Your task to perform on an android device: change the clock style Image 0: 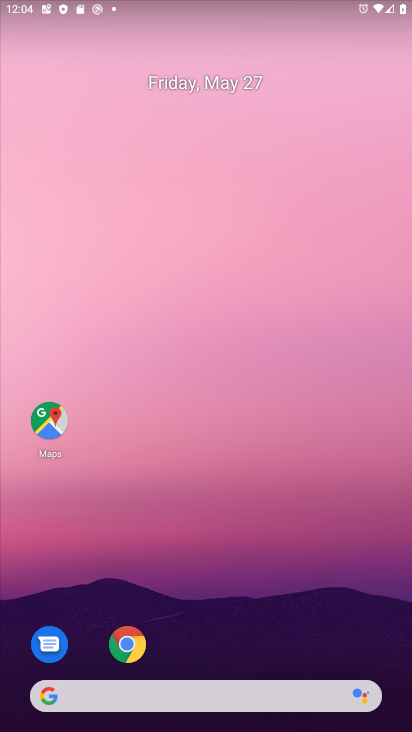
Step 0: drag from (212, 660) to (217, 132)
Your task to perform on an android device: change the clock style Image 1: 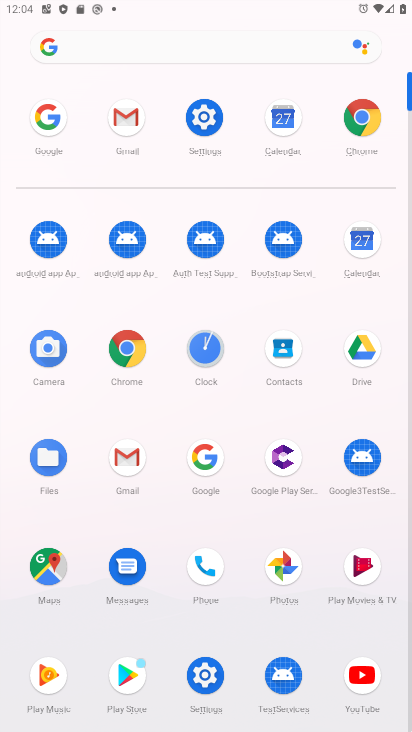
Step 1: click (196, 361)
Your task to perform on an android device: change the clock style Image 2: 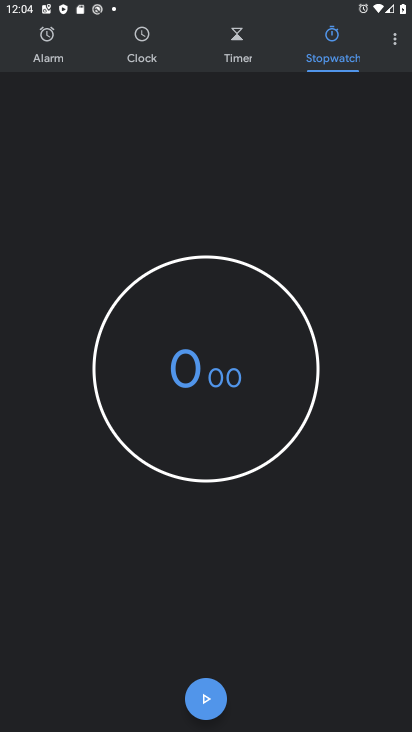
Step 2: click (390, 43)
Your task to perform on an android device: change the clock style Image 3: 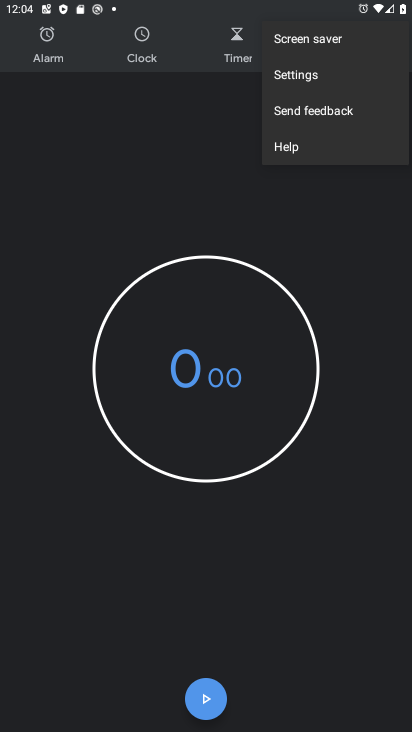
Step 3: click (327, 75)
Your task to perform on an android device: change the clock style Image 4: 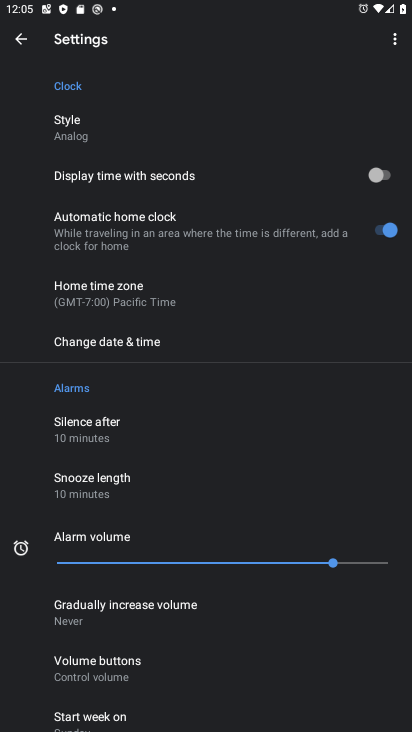
Step 4: click (114, 139)
Your task to perform on an android device: change the clock style Image 5: 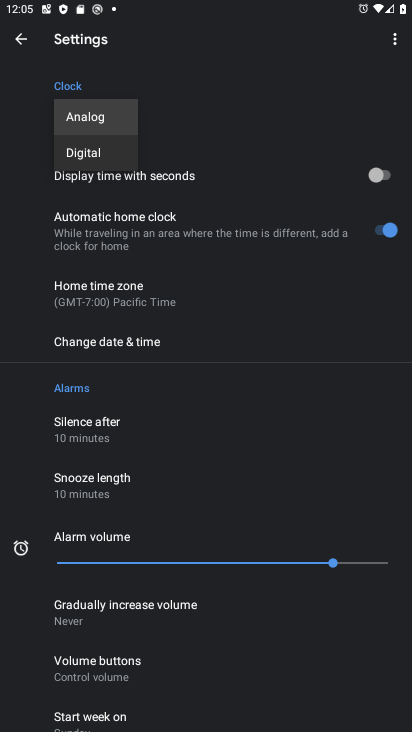
Step 5: click (117, 146)
Your task to perform on an android device: change the clock style Image 6: 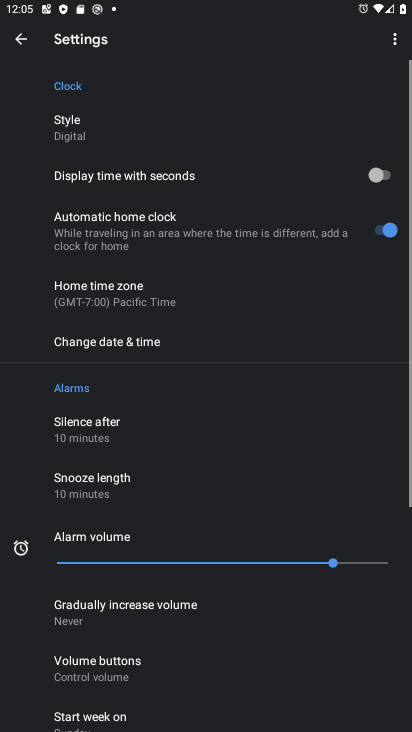
Step 6: task complete